Your task to perform on an android device: Search for Italian restaurants on Maps Image 0: 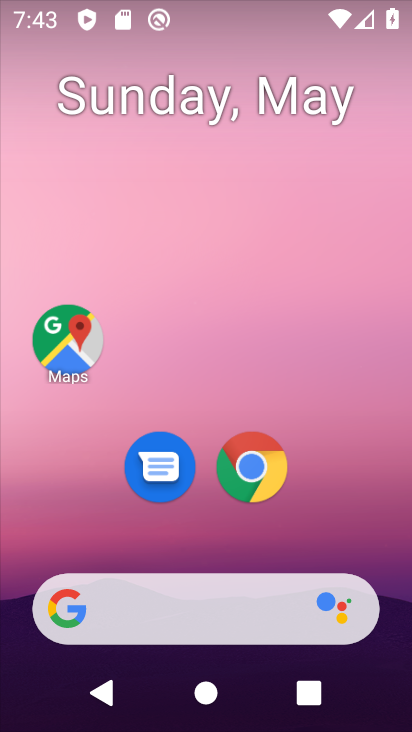
Step 0: click (67, 345)
Your task to perform on an android device: Search for Italian restaurants on Maps Image 1: 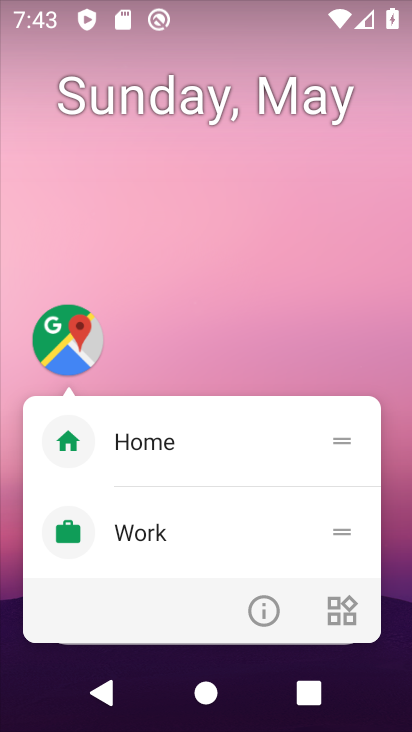
Step 1: click (67, 345)
Your task to perform on an android device: Search for Italian restaurants on Maps Image 2: 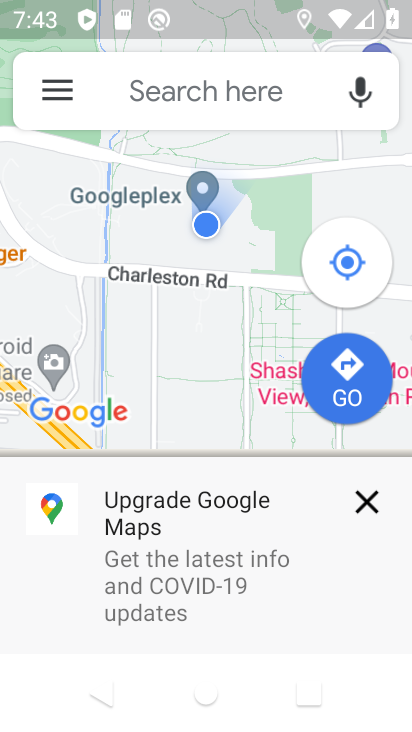
Step 2: click (141, 93)
Your task to perform on an android device: Search for Italian restaurants on Maps Image 3: 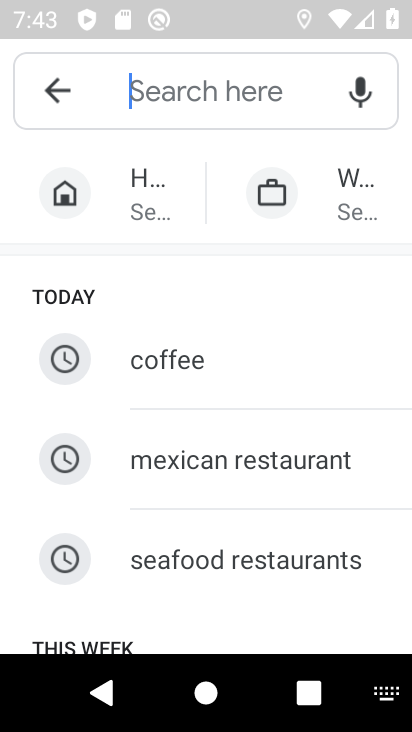
Step 3: type "italian restaurant"
Your task to perform on an android device: Search for Italian restaurants on Maps Image 4: 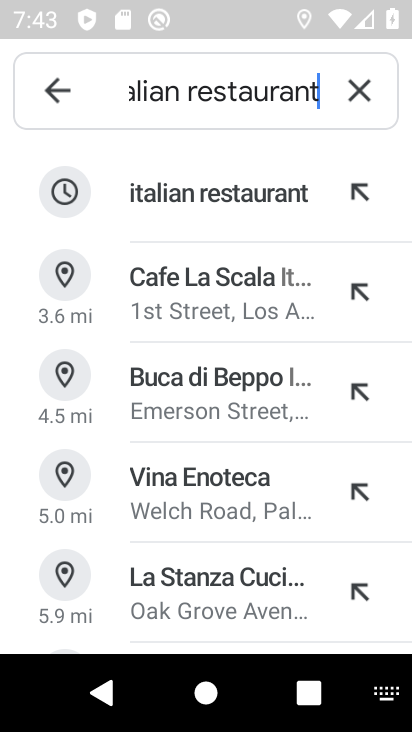
Step 4: click (209, 197)
Your task to perform on an android device: Search for Italian restaurants on Maps Image 5: 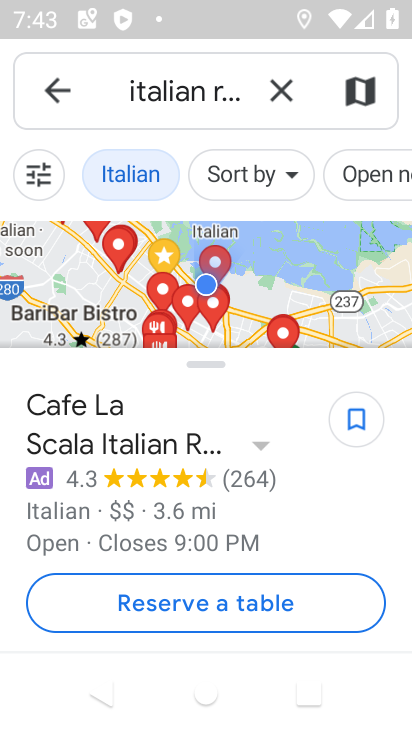
Step 5: task complete